Your task to perform on an android device: add a contact Image 0: 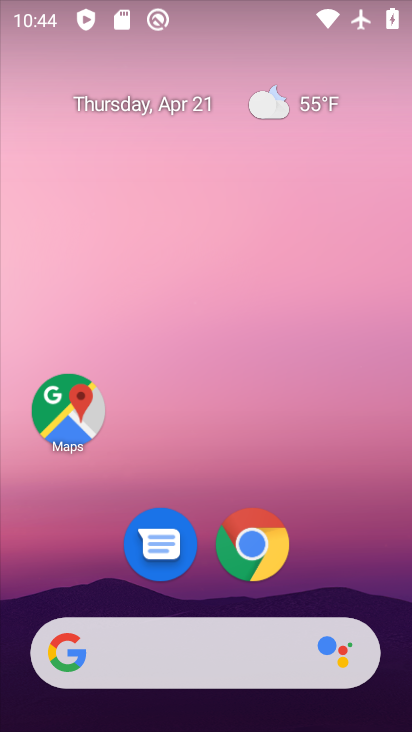
Step 0: drag from (298, 501) to (224, 42)
Your task to perform on an android device: add a contact Image 1: 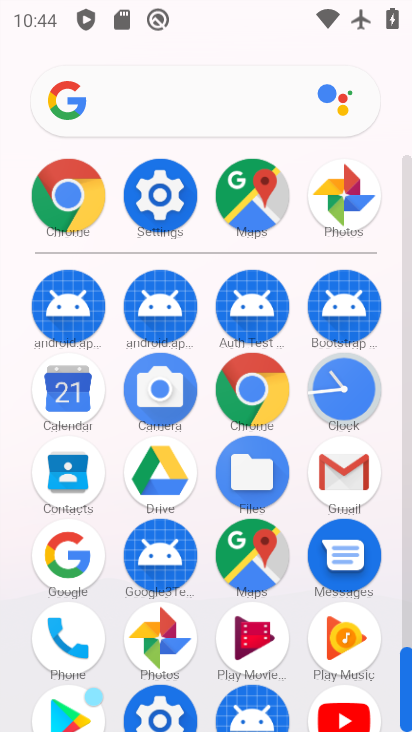
Step 1: drag from (10, 533) to (5, 236)
Your task to perform on an android device: add a contact Image 2: 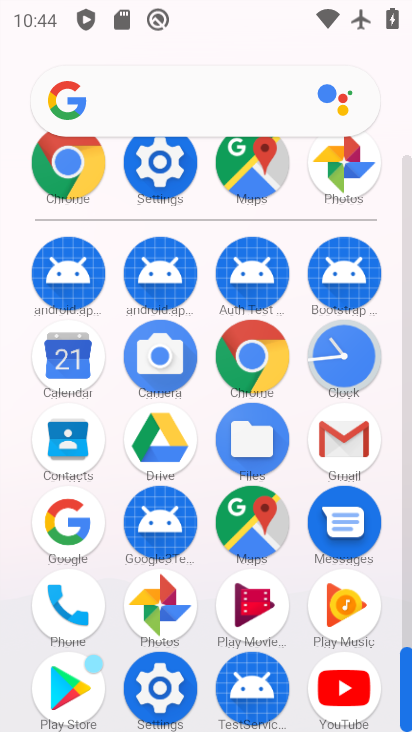
Step 2: click (67, 438)
Your task to perform on an android device: add a contact Image 3: 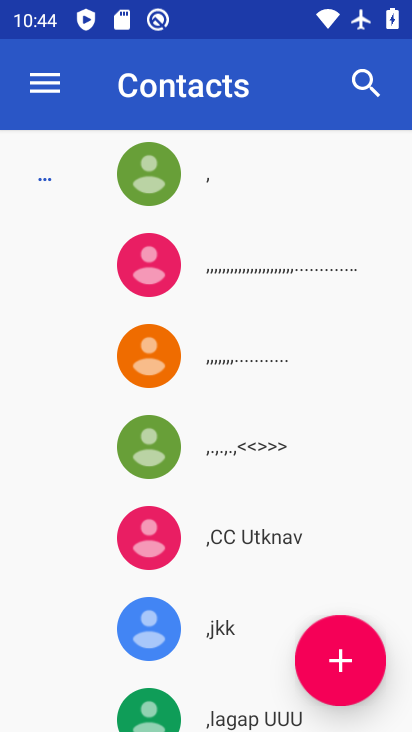
Step 3: click (328, 649)
Your task to perform on an android device: add a contact Image 4: 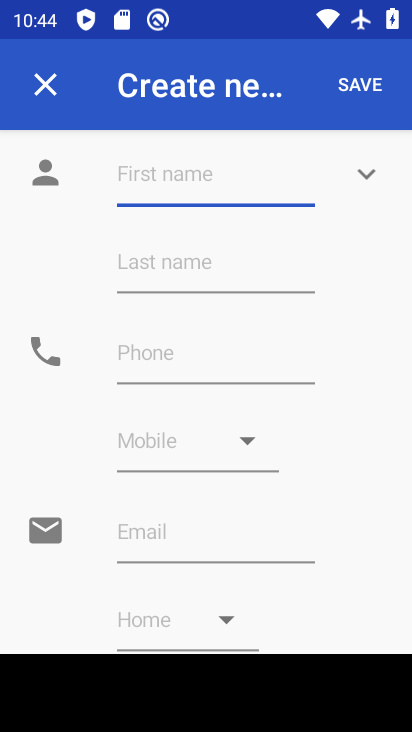
Step 4: type "LKujugj"
Your task to perform on an android device: add a contact Image 5: 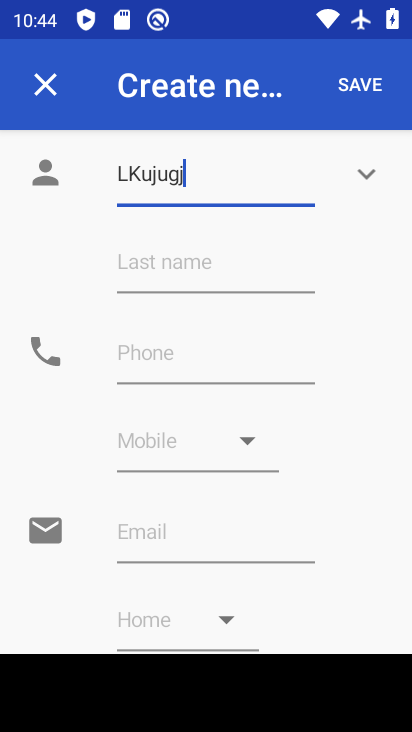
Step 5: type ""
Your task to perform on an android device: add a contact Image 6: 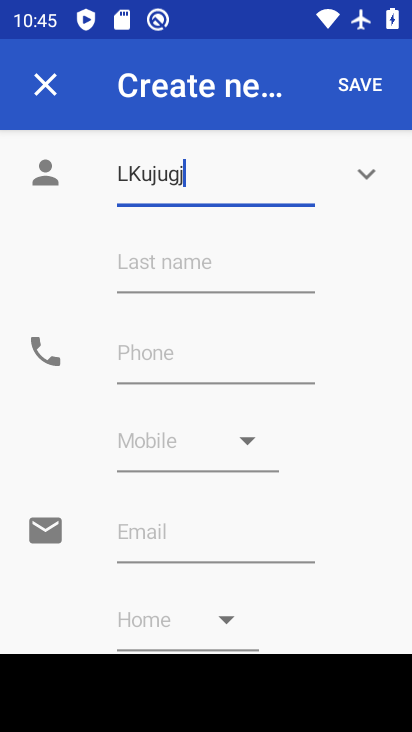
Step 6: click (176, 270)
Your task to perform on an android device: add a contact Image 7: 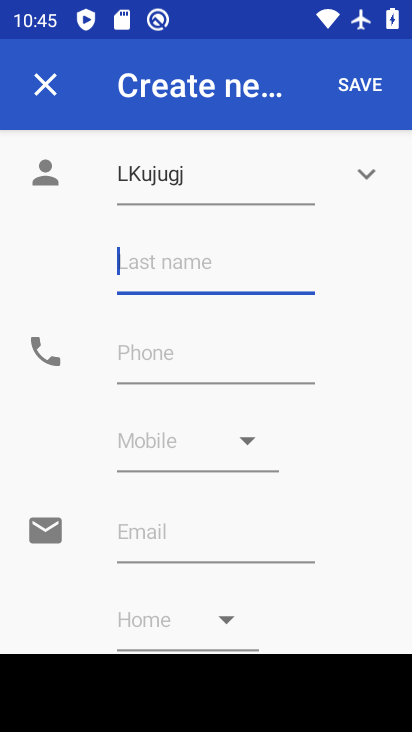
Step 7: type "Toou"
Your task to perform on an android device: add a contact Image 8: 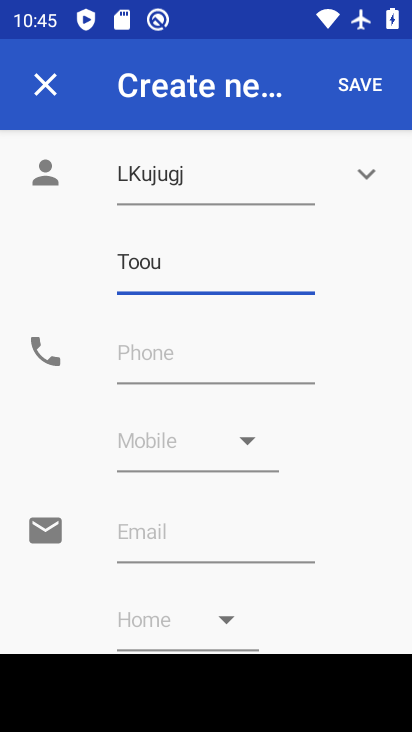
Step 8: click (174, 365)
Your task to perform on an android device: add a contact Image 9: 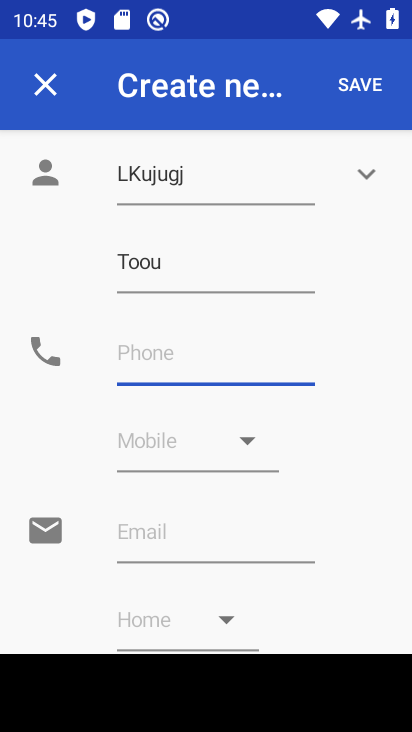
Step 9: type "45658765355678"
Your task to perform on an android device: add a contact Image 10: 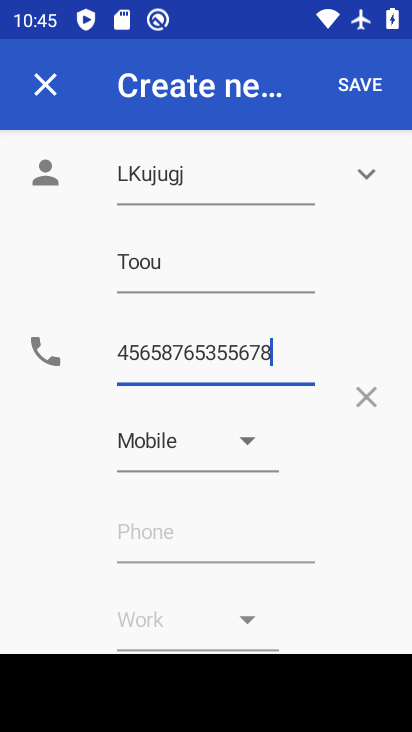
Step 10: type ""
Your task to perform on an android device: add a contact Image 11: 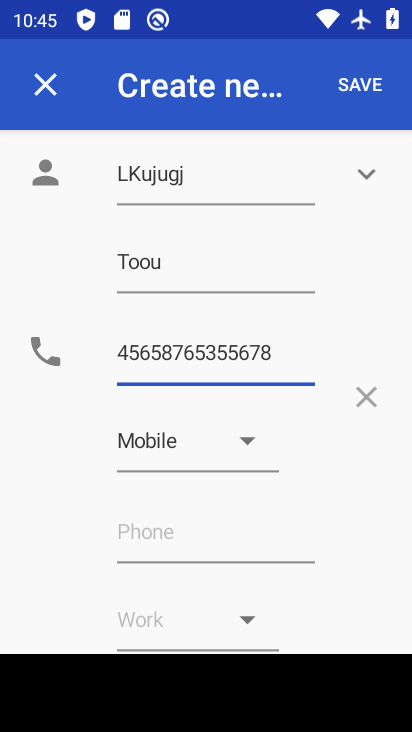
Step 11: click (370, 92)
Your task to perform on an android device: add a contact Image 12: 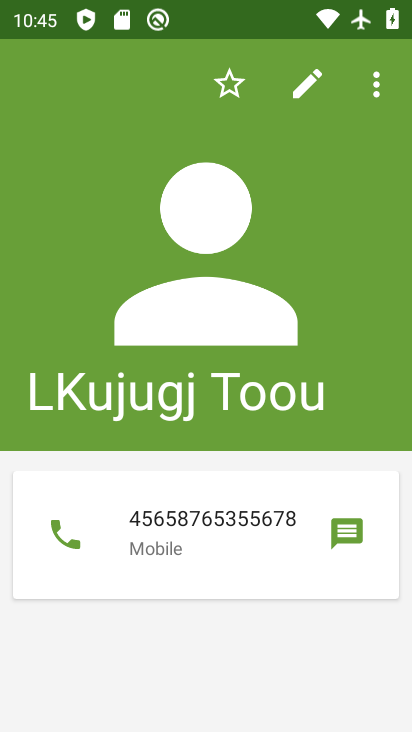
Step 12: task complete